Your task to perform on an android device: Open Google Image 0: 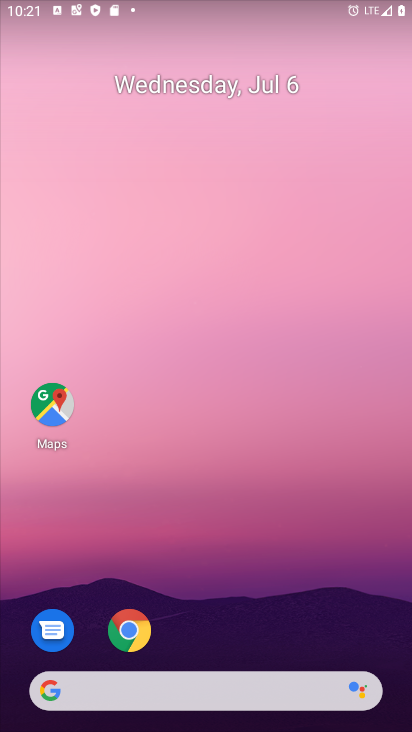
Step 0: click (132, 630)
Your task to perform on an android device: Open Google Image 1: 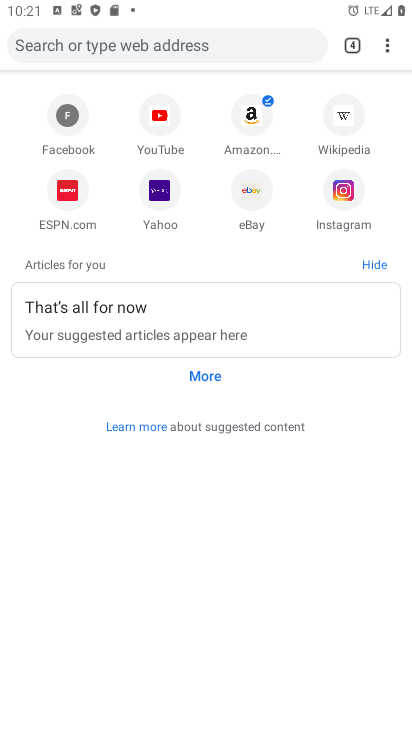
Step 1: task complete